Your task to perform on an android device: empty trash in google photos Image 0: 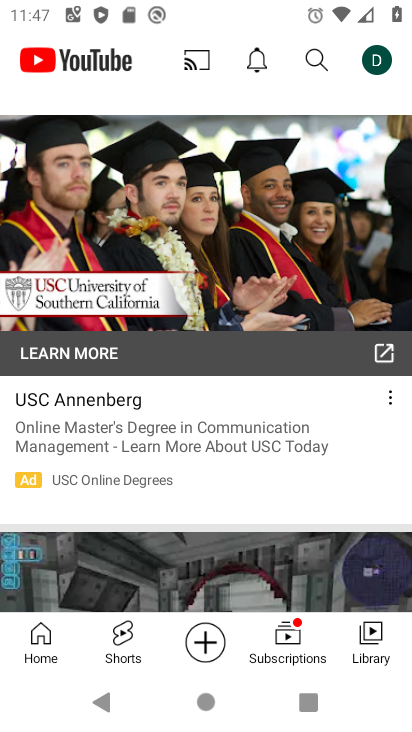
Step 0: press home button
Your task to perform on an android device: empty trash in google photos Image 1: 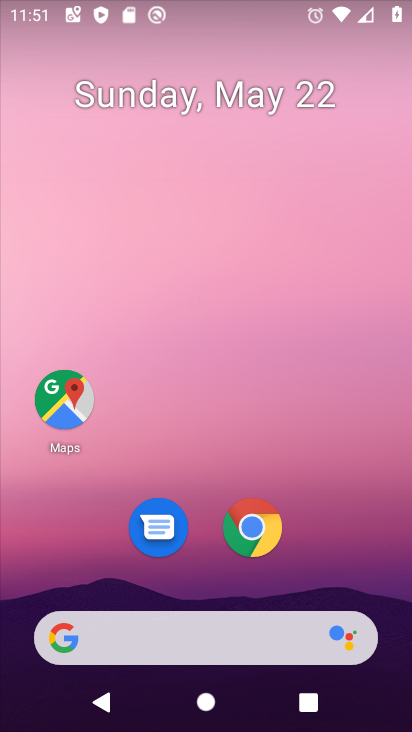
Step 1: drag from (362, 539) to (339, 65)
Your task to perform on an android device: empty trash in google photos Image 2: 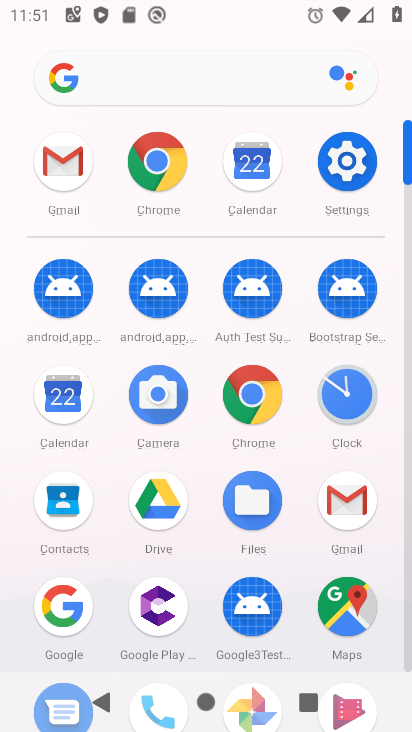
Step 2: click (411, 648)
Your task to perform on an android device: empty trash in google photos Image 3: 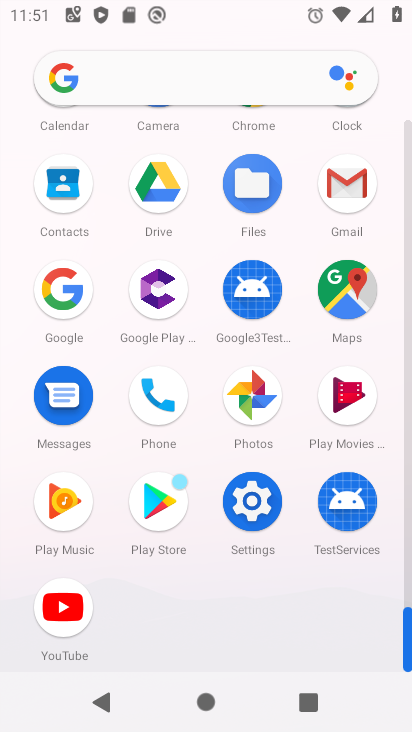
Step 3: click (270, 435)
Your task to perform on an android device: empty trash in google photos Image 4: 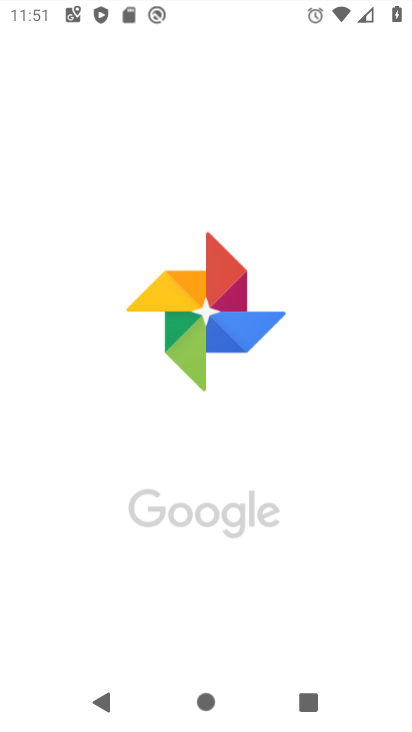
Step 4: task complete